Your task to perform on an android device: turn on the 12-hour format for clock Image 0: 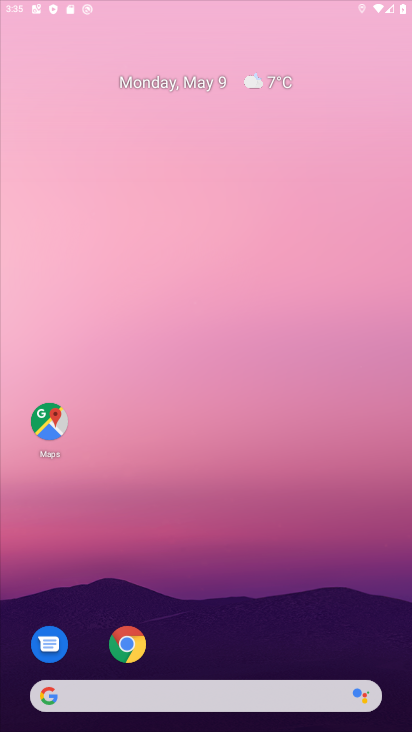
Step 0: press home button
Your task to perform on an android device: turn on the 12-hour format for clock Image 1: 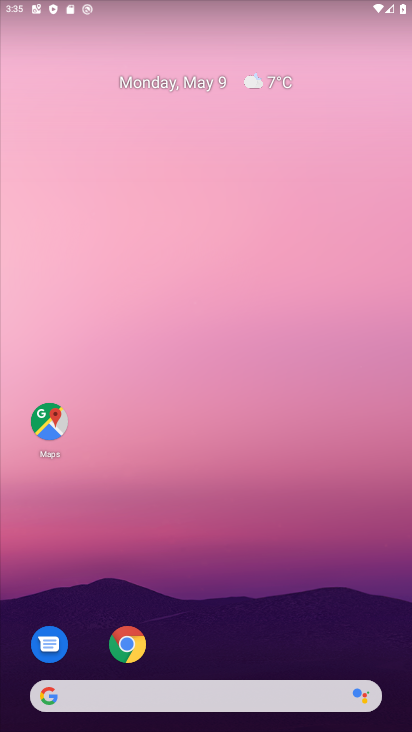
Step 1: drag from (369, 617) to (270, 143)
Your task to perform on an android device: turn on the 12-hour format for clock Image 2: 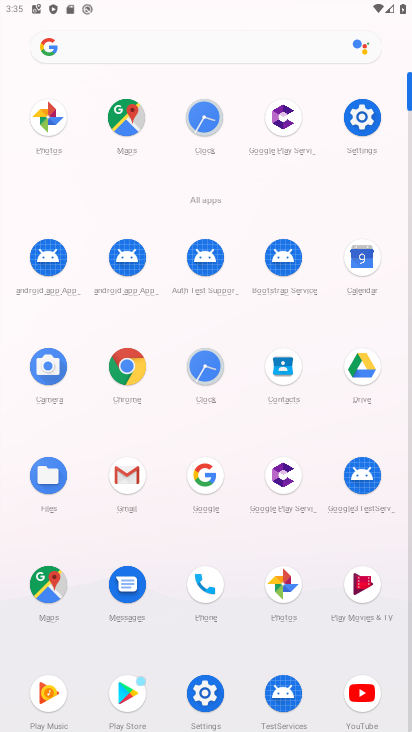
Step 2: click (197, 364)
Your task to perform on an android device: turn on the 12-hour format for clock Image 3: 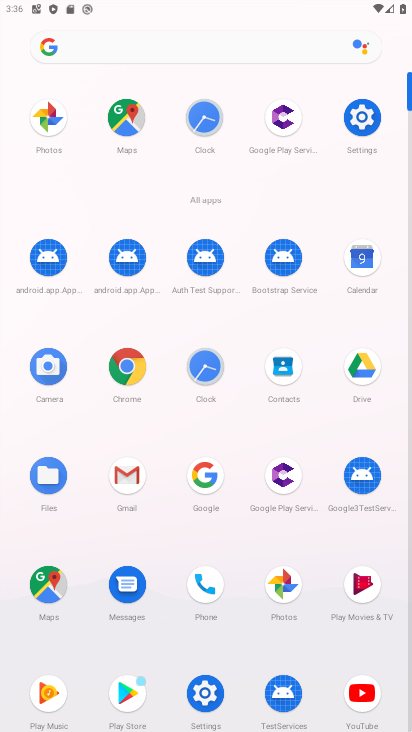
Step 3: click (209, 364)
Your task to perform on an android device: turn on the 12-hour format for clock Image 4: 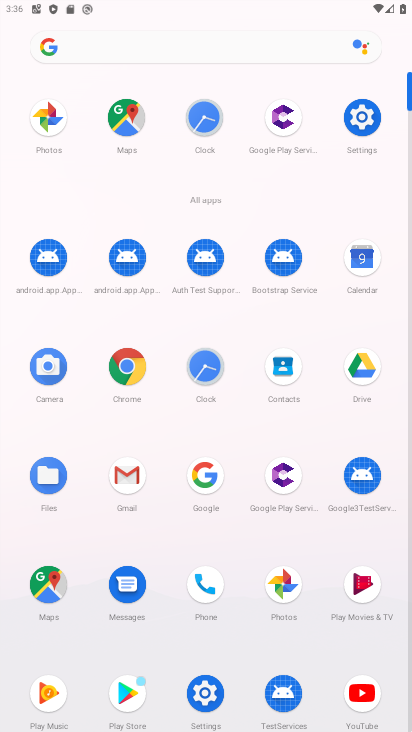
Step 4: click (209, 365)
Your task to perform on an android device: turn on the 12-hour format for clock Image 5: 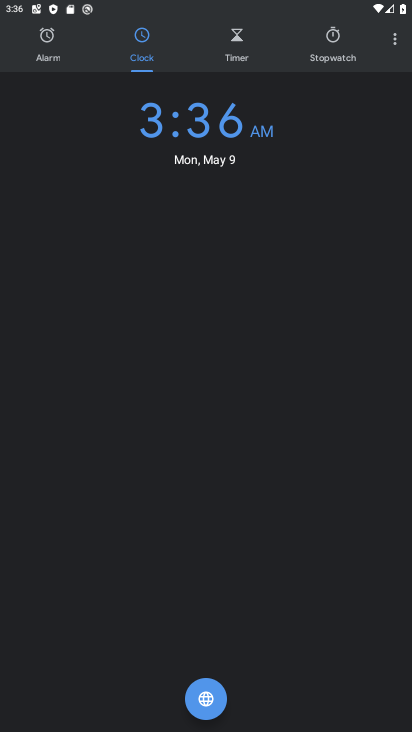
Step 5: click (391, 45)
Your task to perform on an android device: turn on the 12-hour format for clock Image 6: 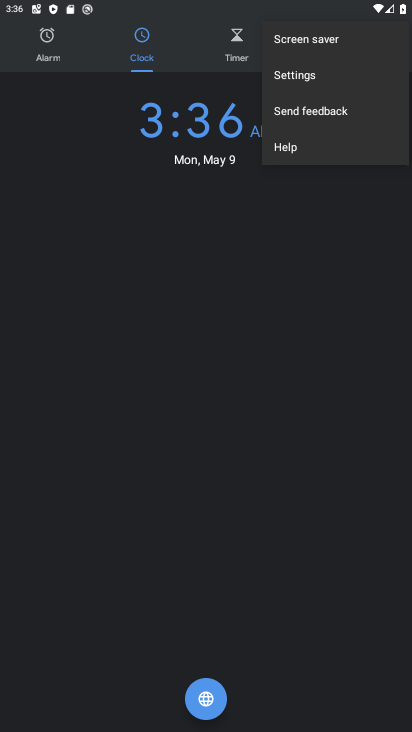
Step 6: click (307, 75)
Your task to perform on an android device: turn on the 12-hour format for clock Image 7: 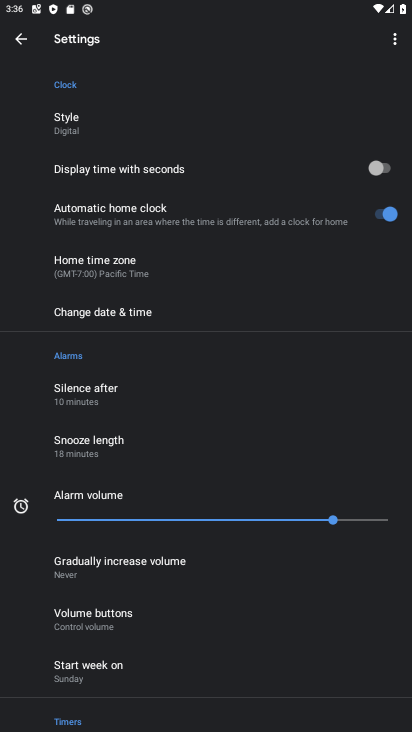
Step 7: click (86, 308)
Your task to perform on an android device: turn on the 12-hour format for clock Image 8: 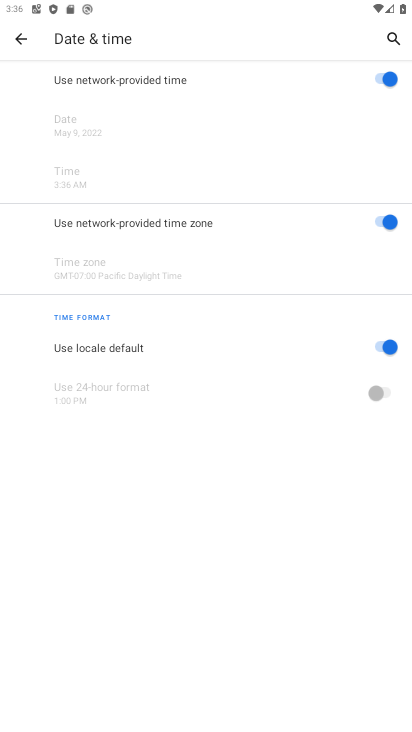
Step 8: task complete